Your task to perform on an android device: turn off translation in the chrome app Image 0: 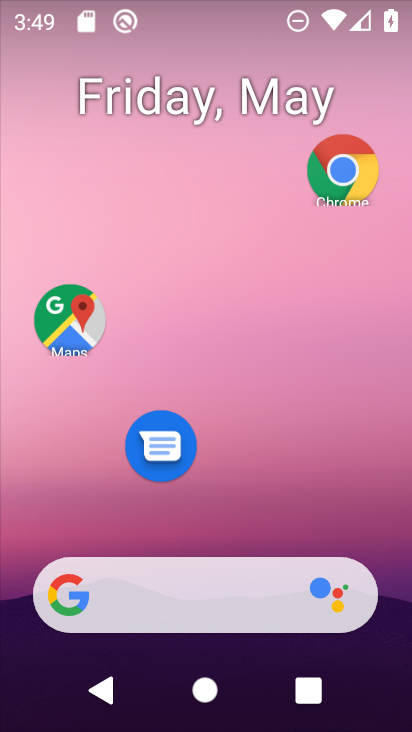
Step 0: drag from (289, 500) to (262, 82)
Your task to perform on an android device: turn off translation in the chrome app Image 1: 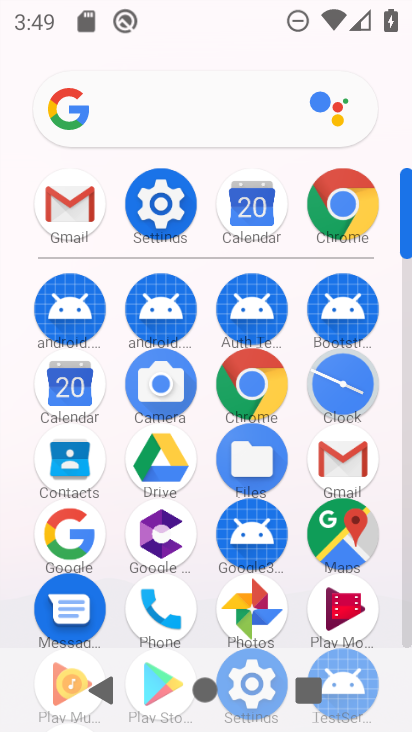
Step 1: click (248, 377)
Your task to perform on an android device: turn off translation in the chrome app Image 2: 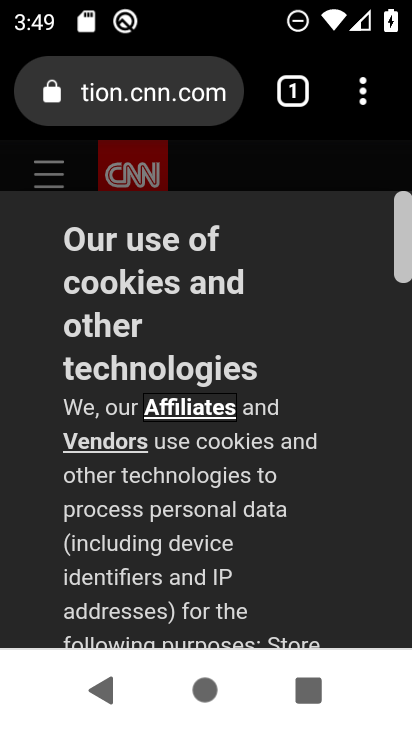
Step 2: drag from (356, 90) to (133, 467)
Your task to perform on an android device: turn off translation in the chrome app Image 3: 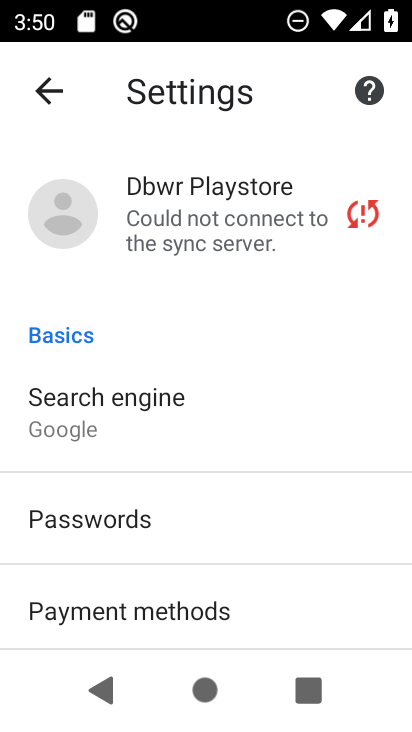
Step 3: drag from (294, 602) to (251, 262)
Your task to perform on an android device: turn off translation in the chrome app Image 4: 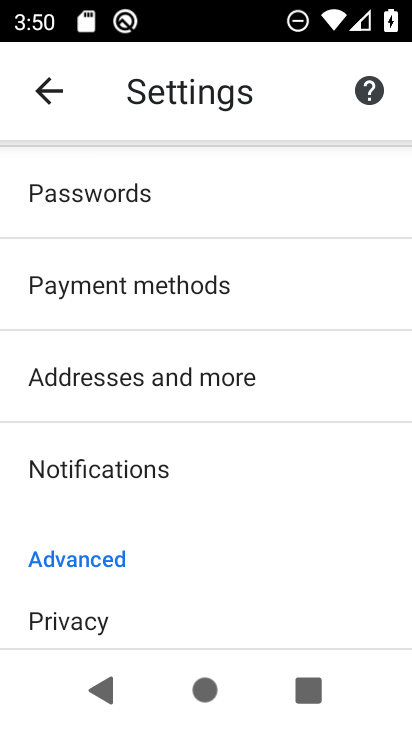
Step 4: drag from (250, 572) to (259, 233)
Your task to perform on an android device: turn off translation in the chrome app Image 5: 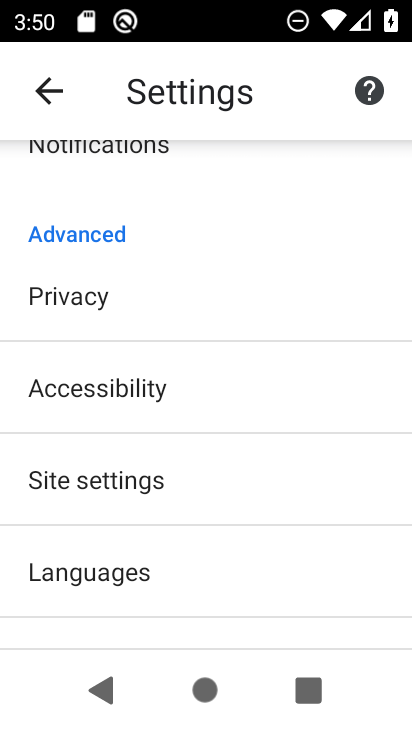
Step 5: click (112, 565)
Your task to perform on an android device: turn off translation in the chrome app Image 6: 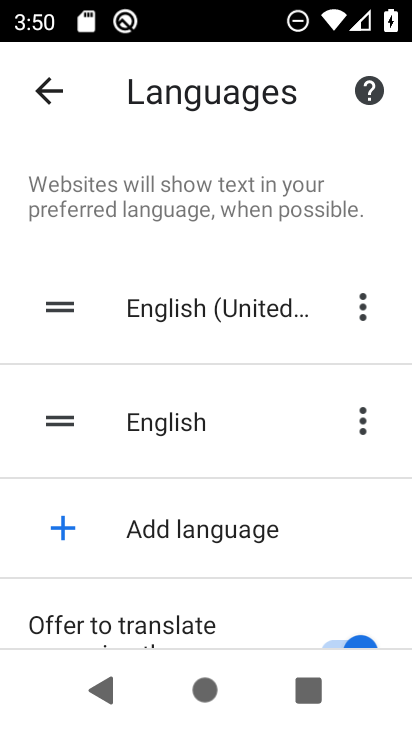
Step 6: drag from (252, 608) to (274, 398)
Your task to perform on an android device: turn off translation in the chrome app Image 7: 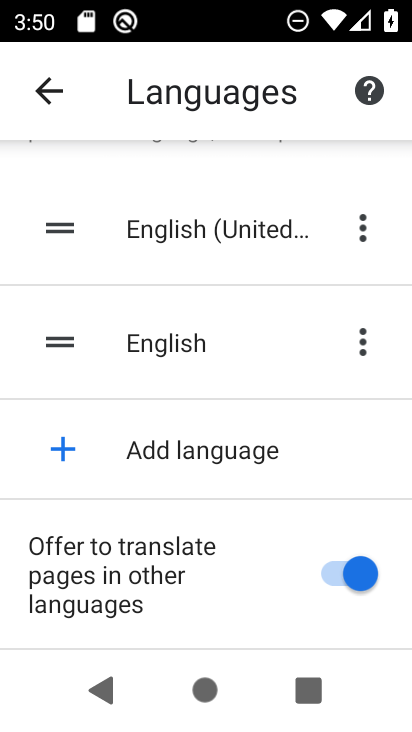
Step 7: click (351, 567)
Your task to perform on an android device: turn off translation in the chrome app Image 8: 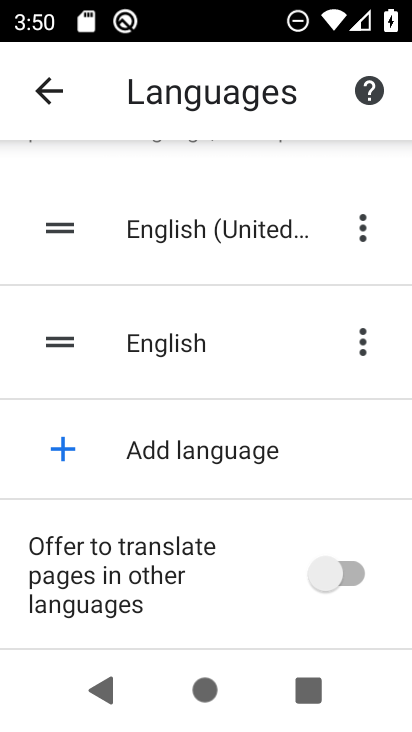
Step 8: task complete